Your task to perform on an android device: delete a single message in the gmail app Image 0: 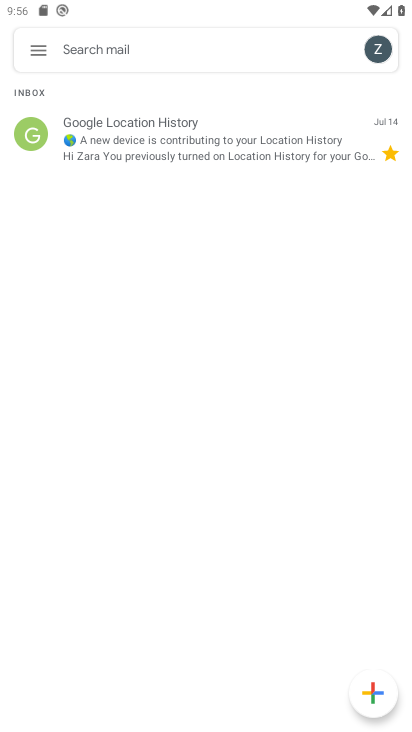
Step 0: click (27, 136)
Your task to perform on an android device: delete a single message in the gmail app Image 1: 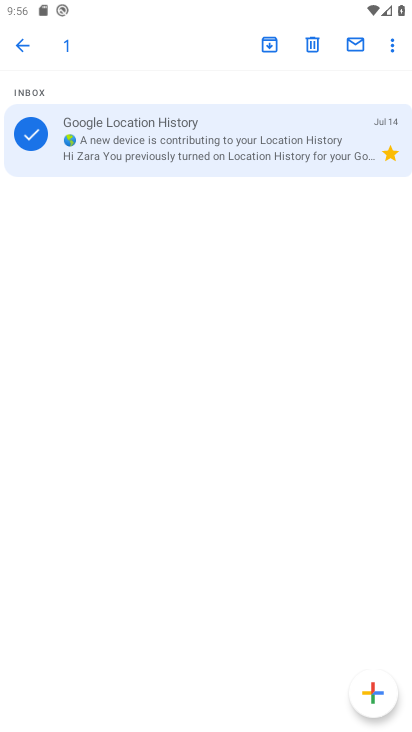
Step 1: click (307, 42)
Your task to perform on an android device: delete a single message in the gmail app Image 2: 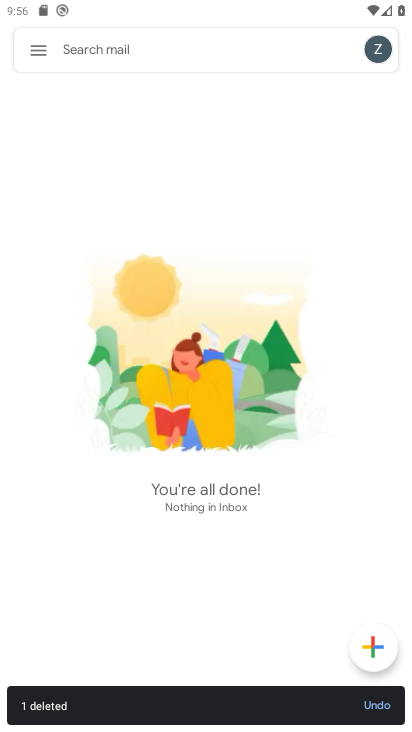
Step 2: task complete